Your task to perform on an android device: star an email in the gmail app Image 0: 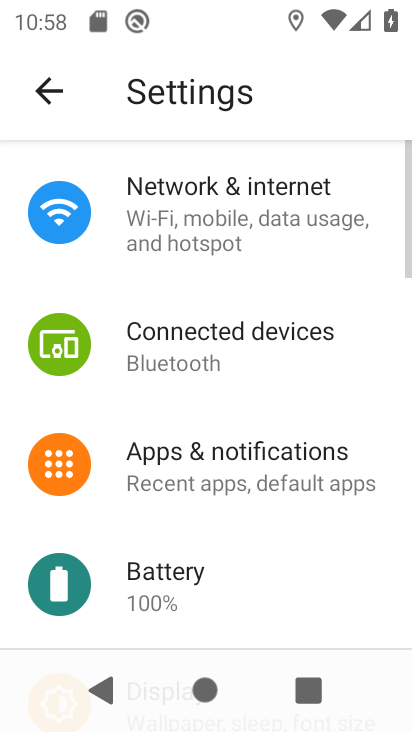
Step 0: press home button
Your task to perform on an android device: star an email in the gmail app Image 1: 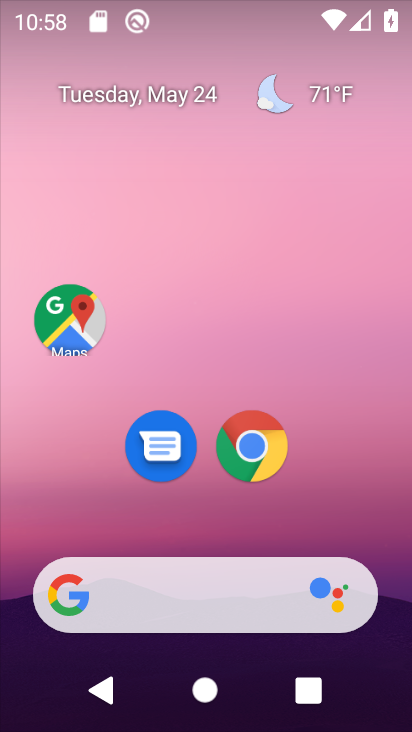
Step 1: drag from (164, 530) to (257, 207)
Your task to perform on an android device: star an email in the gmail app Image 2: 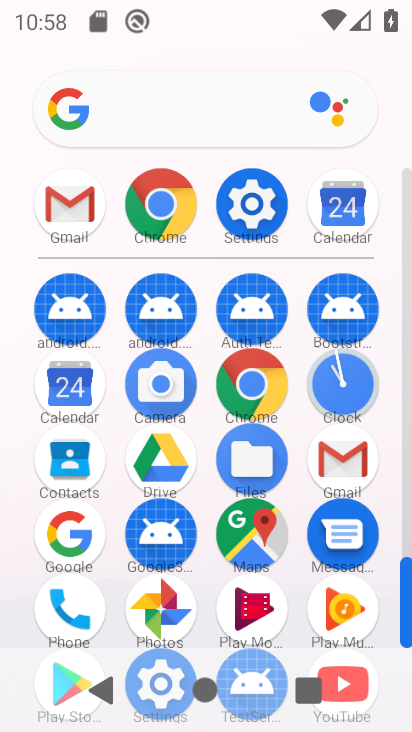
Step 2: click (348, 471)
Your task to perform on an android device: star an email in the gmail app Image 3: 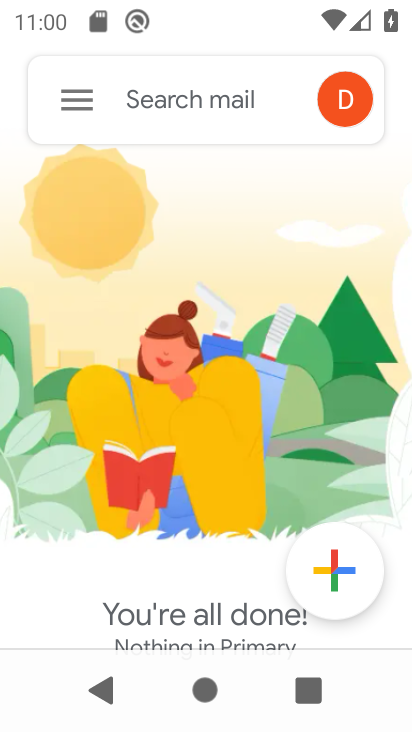
Step 3: click (103, 107)
Your task to perform on an android device: star an email in the gmail app Image 4: 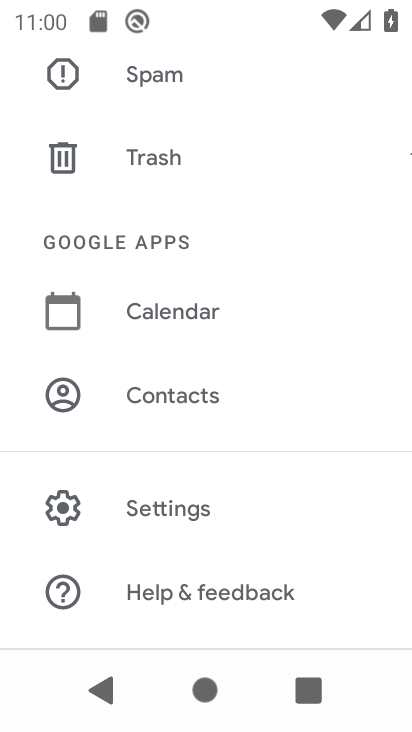
Step 4: drag from (188, 143) to (199, 469)
Your task to perform on an android device: star an email in the gmail app Image 5: 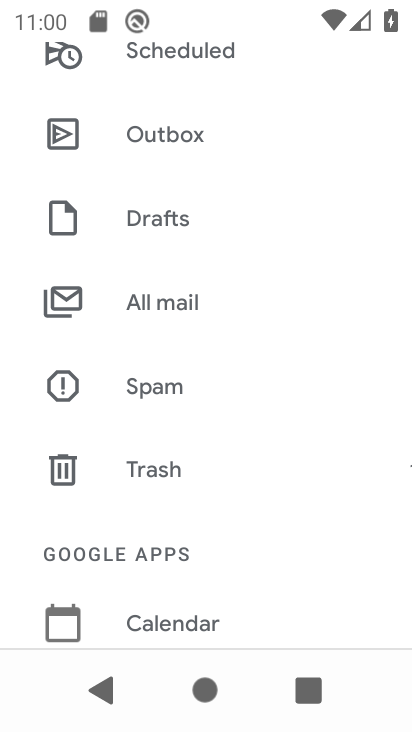
Step 5: click (172, 317)
Your task to perform on an android device: star an email in the gmail app Image 6: 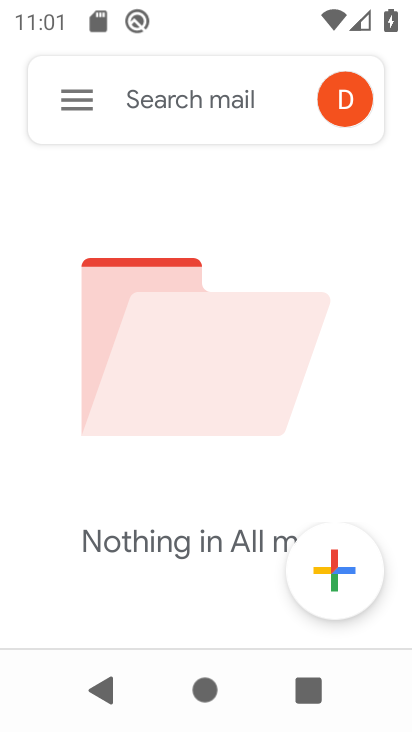
Step 6: click (86, 105)
Your task to perform on an android device: star an email in the gmail app Image 7: 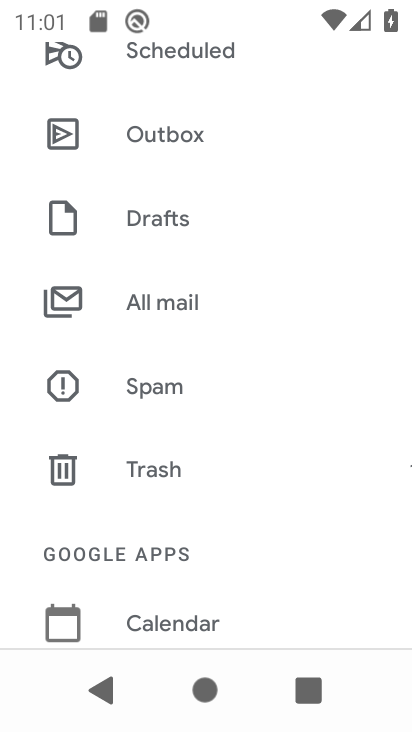
Step 7: task complete